Your task to perform on an android device: Open Google Image 0: 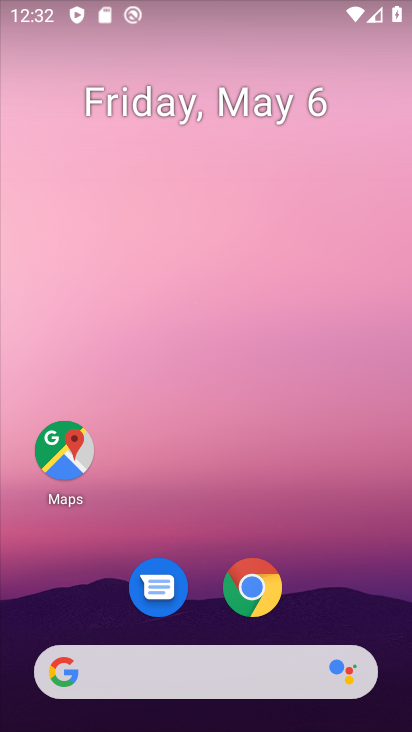
Step 0: drag from (53, 536) to (249, 83)
Your task to perform on an android device: Open Google Image 1: 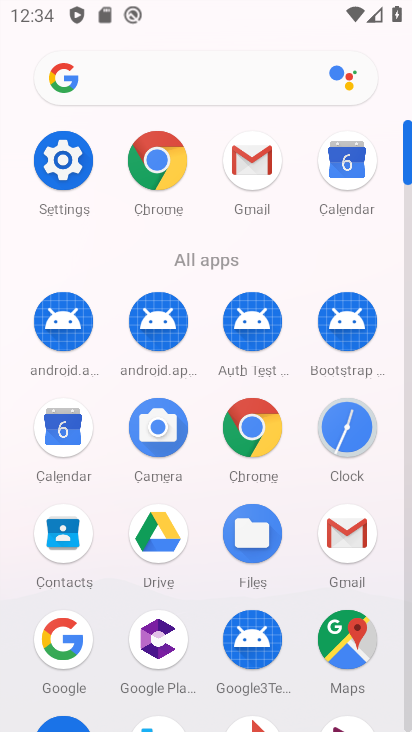
Step 1: click (66, 653)
Your task to perform on an android device: Open Google Image 2: 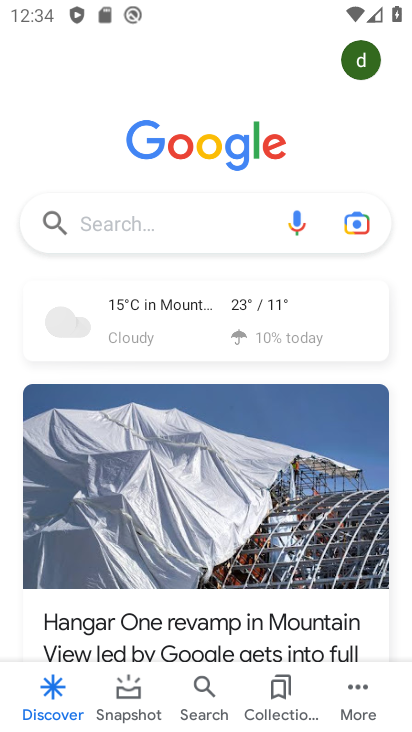
Step 2: task complete